Your task to perform on an android device: Go to privacy settings Image 0: 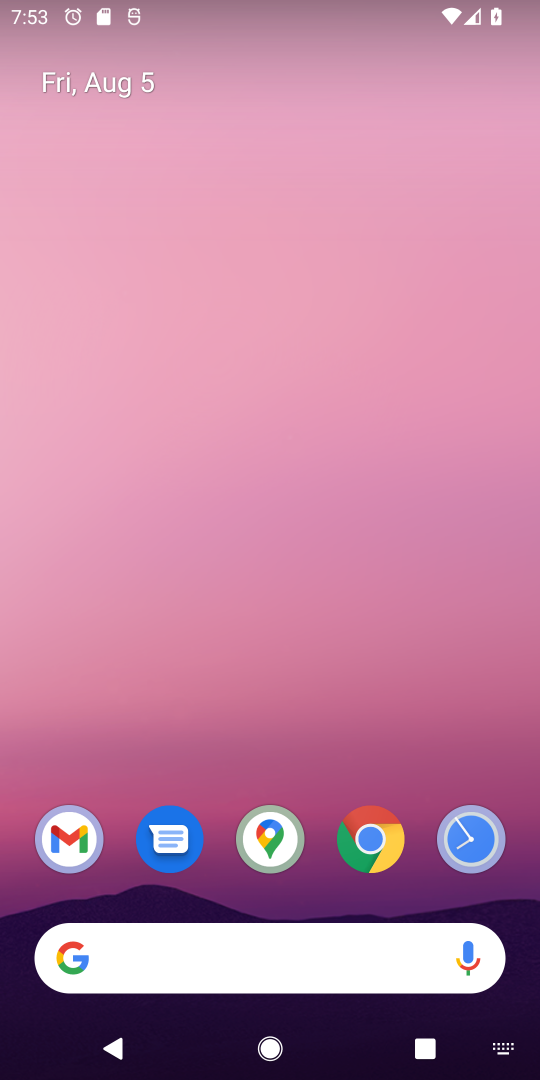
Step 0: drag from (266, 730) to (267, 80)
Your task to perform on an android device: Go to privacy settings Image 1: 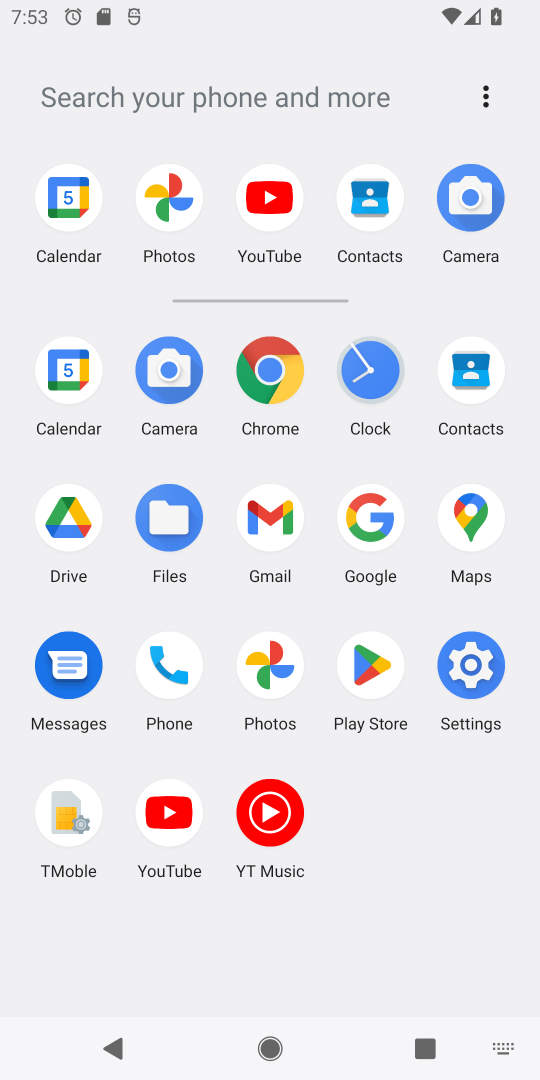
Step 1: click (449, 654)
Your task to perform on an android device: Go to privacy settings Image 2: 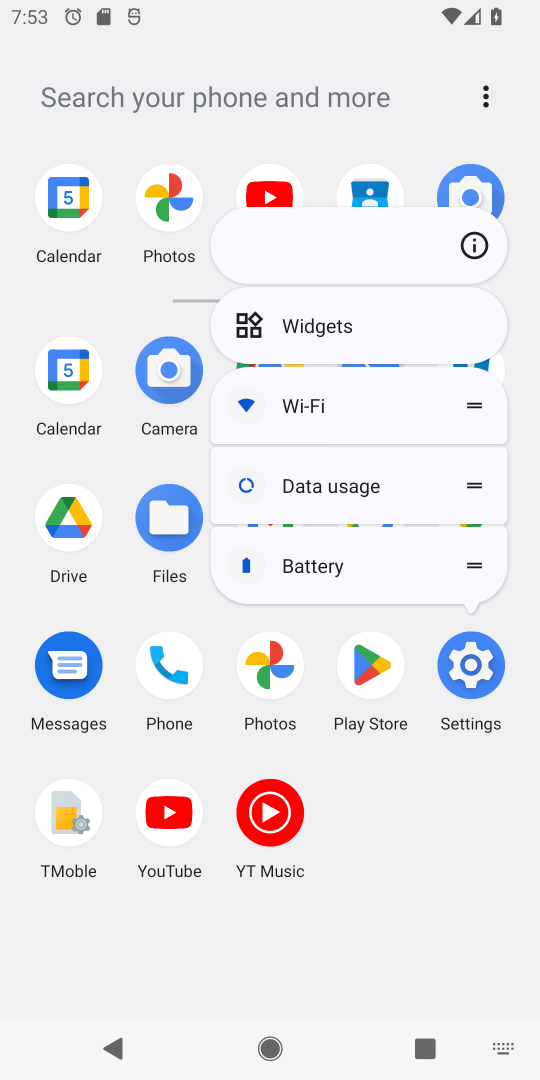
Step 2: click (471, 702)
Your task to perform on an android device: Go to privacy settings Image 3: 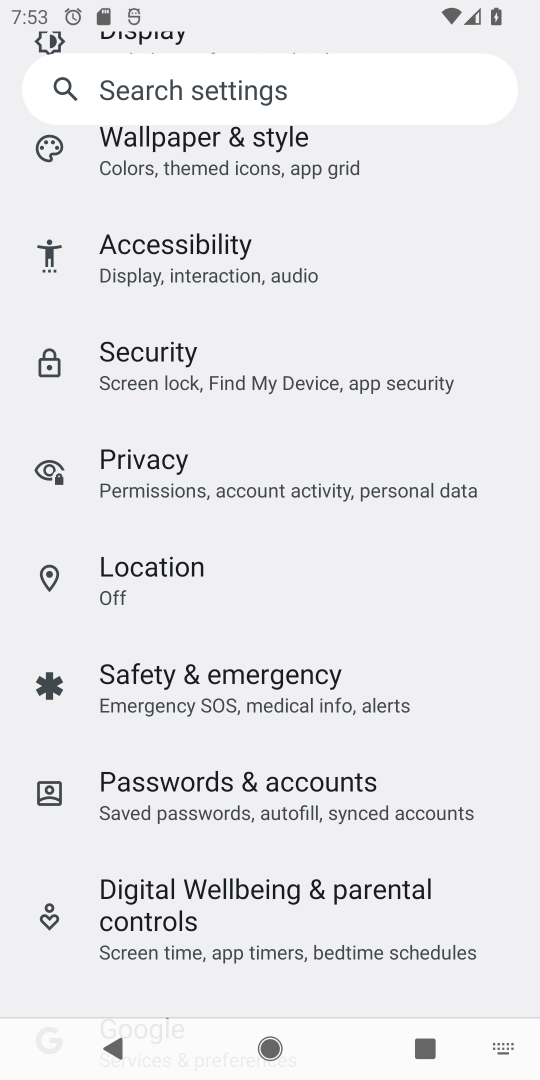
Step 3: click (241, 458)
Your task to perform on an android device: Go to privacy settings Image 4: 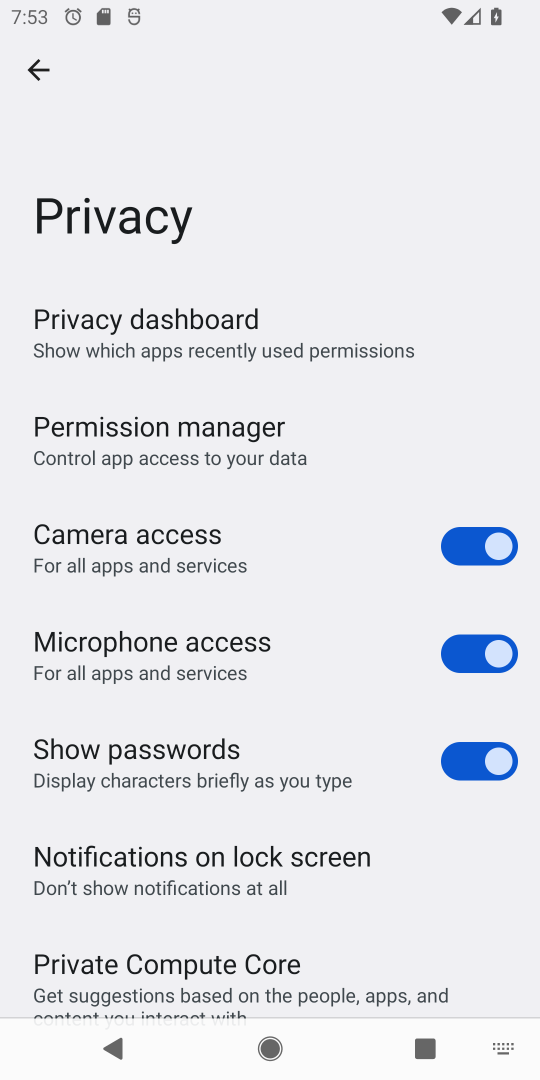
Step 4: task complete